Your task to perform on an android device: Open the map Image 0: 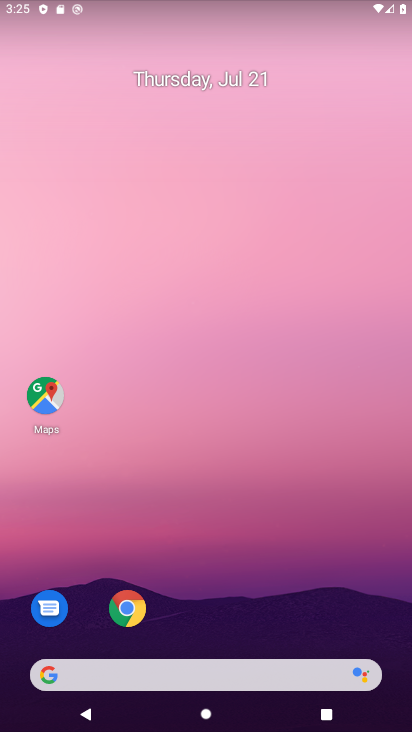
Step 0: click (258, 87)
Your task to perform on an android device: Open the map Image 1: 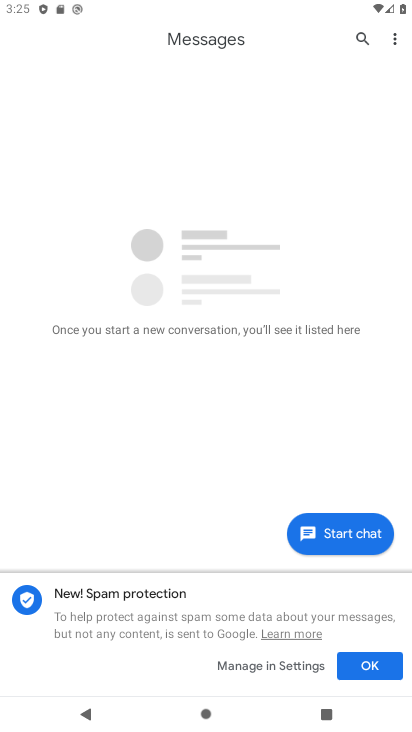
Step 1: press home button
Your task to perform on an android device: Open the map Image 2: 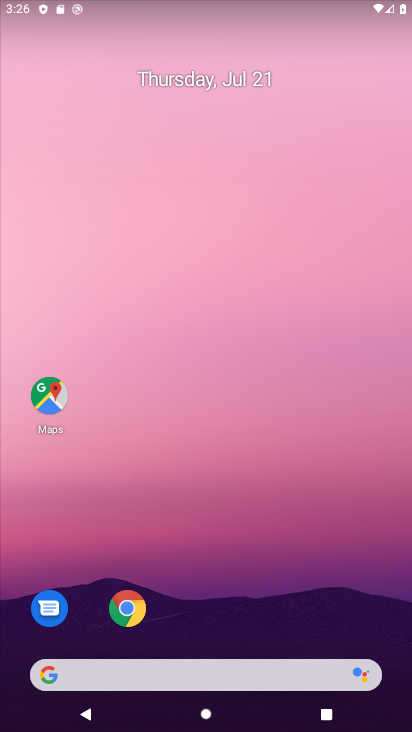
Step 2: drag from (257, 670) to (259, 129)
Your task to perform on an android device: Open the map Image 3: 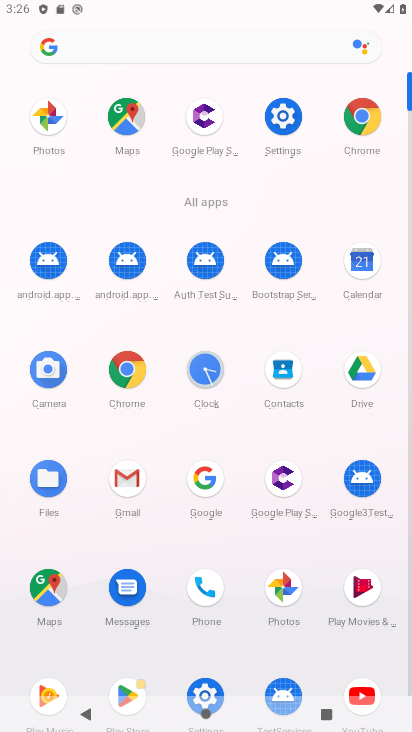
Step 3: click (55, 579)
Your task to perform on an android device: Open the map Image 4: 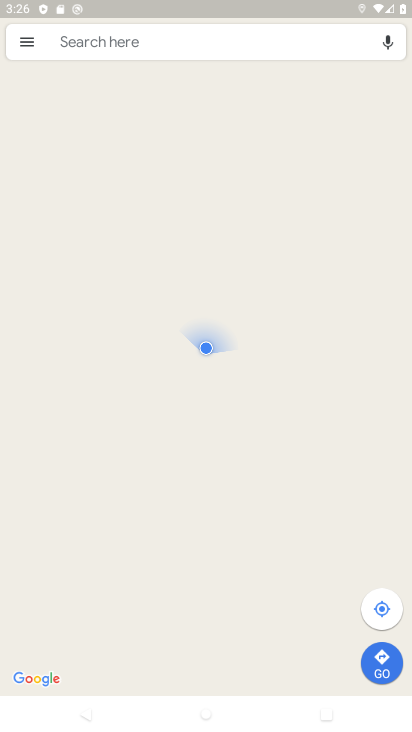
Step 4: task complete